Your task to perform on an android device: star an email in the gmail app Image 0: 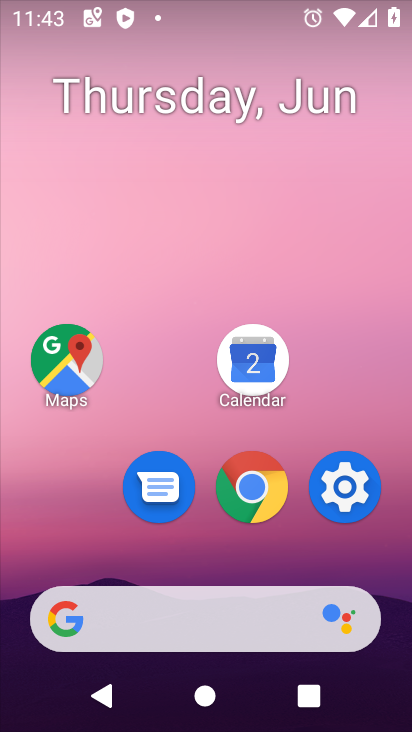
Step 0: drag from (255, 667) to (404, 99)
Your task to perform on an android device: star an email in the gmail app Image 1: 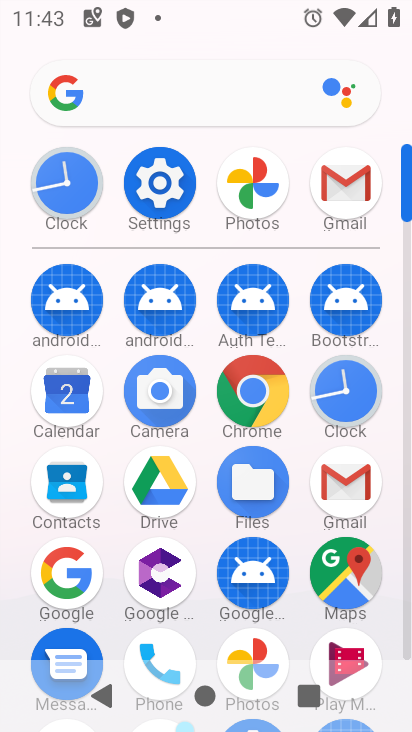
Step 1: click (333, 171)
Your task to perform on an android device: star an email in the gmail app Image 2: 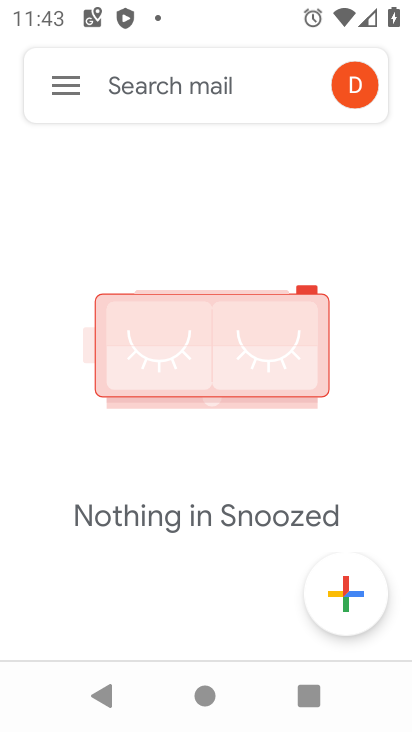
Step 2: click (66, 97)
Your task to perform on an android device: star an email in the gmail app Image 3: 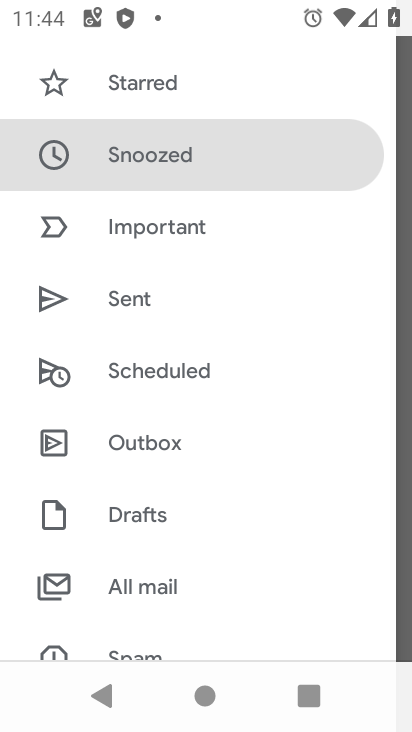
Step 3: click (156, 83)
Your task to perform on an android device: star an email in the gmail app Image 4: 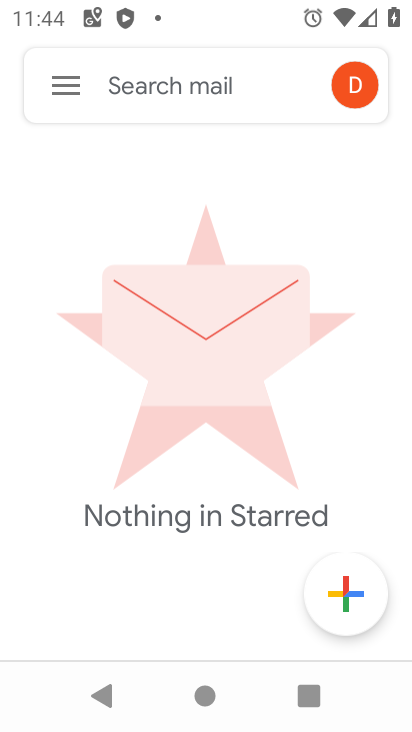
Step 4: task complete